Your task to perform on an android device: turn notification dots off Image 0: 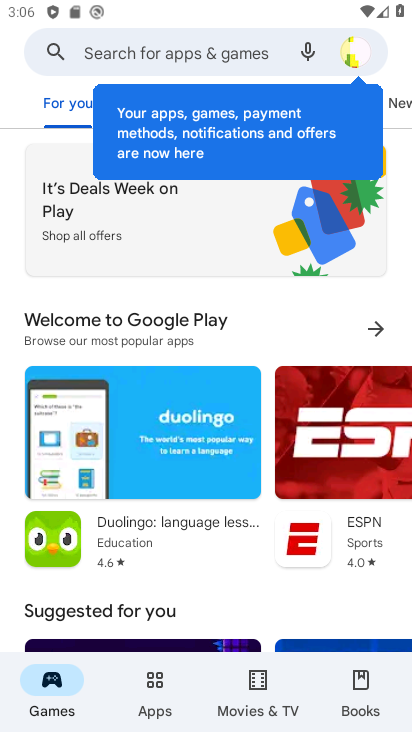
Step 0: press home button
Your task to perform on an android device: turn notification dots off Image 1: 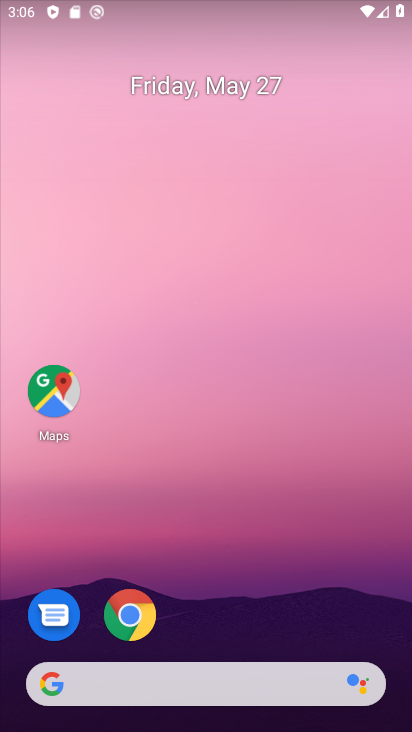
Step 1: drag from (107, 718) to (49, 105)
Your task to perform on an android device: turn notification dots off Image 2: 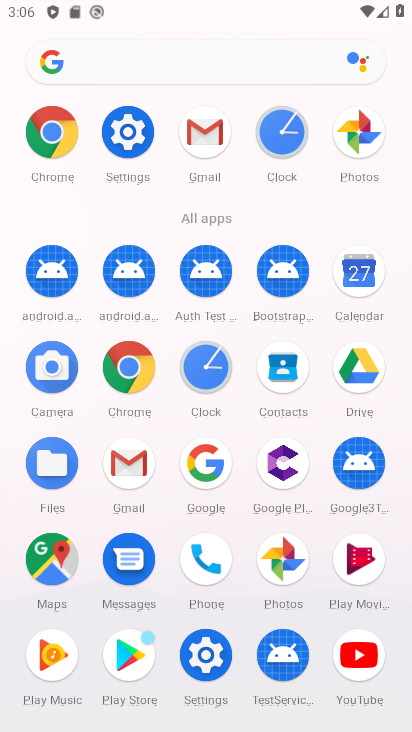
Step 2: click (206, 669)
Your task to perform on an android device: turn notification dots off Image 3: 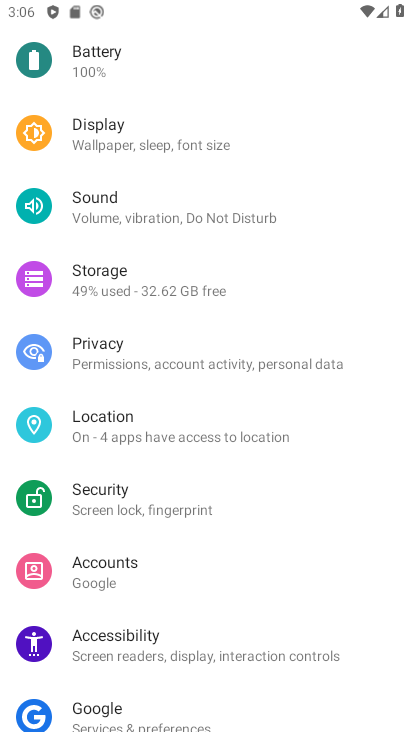
Step 3: drag from (232, 70) to (288, 594)
Your task to perform on an android device: turn notification dots off Image 4: 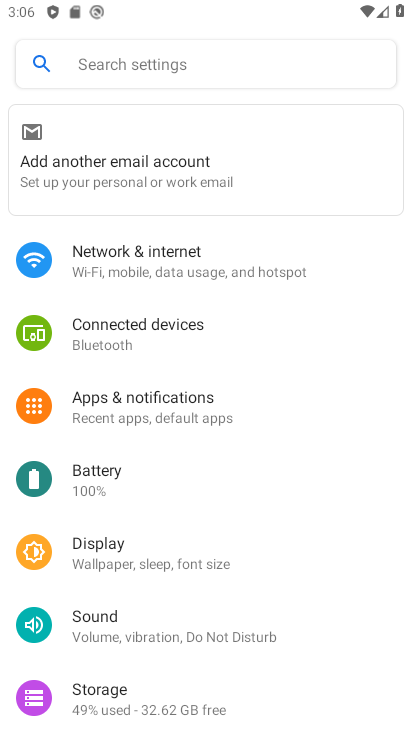
Step 4: click (204, 423)
Your task to perform on an android device: turn notification dots off Image 5: 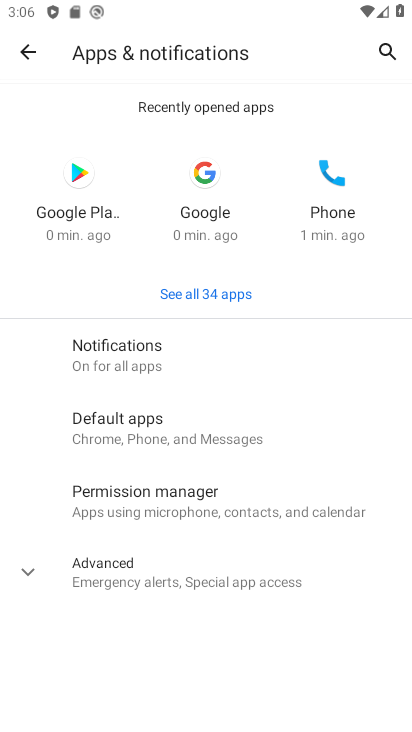
Step 5: click (126, 371)
Your task to perform on an android device: turn notification dots off Image 6: 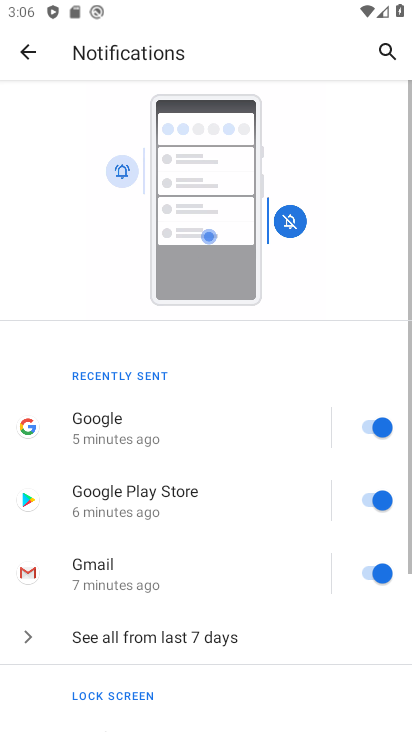
Step 6: drag from (228, 672) to (301, 197)
Your task to perform on an android device: turn notification dots off Image 7: 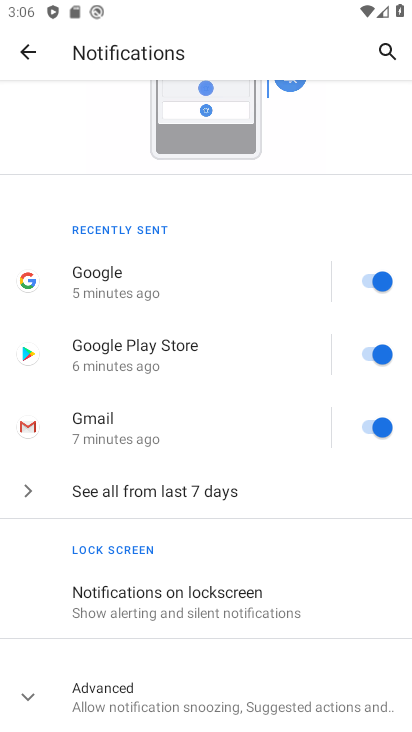
Step 7: click (267, 710)
Your task to perform on an android device: turn notification dots off Image 8: 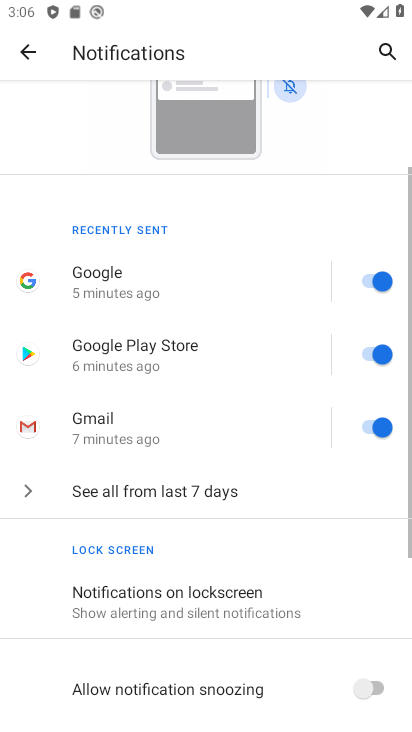
Step 8: drag from (226, 654) to (200, 173)
Your task to perform on an android device: turn notification dots off Image 9: 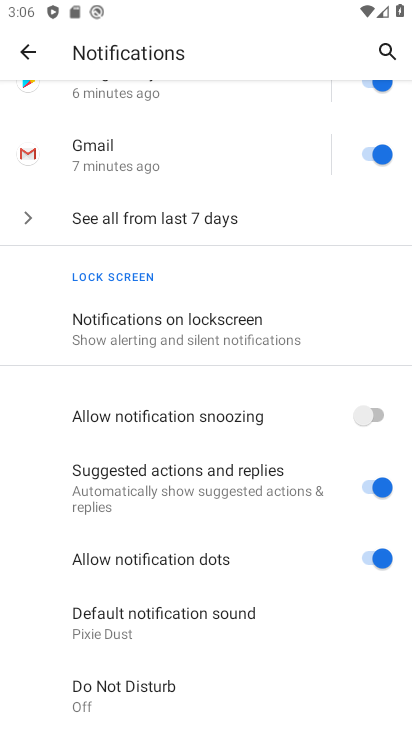
Step 9: click (376, 567)
Your task to perform on an android device: turn notification dots off Image 10: 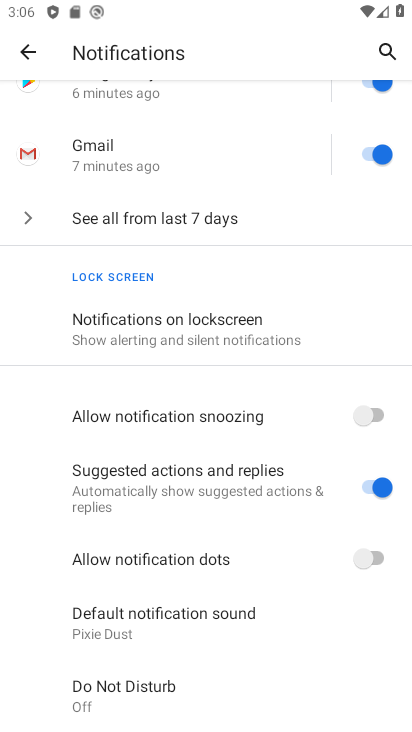
Step 10: task complete